Your task to perform on an android device: Open Google Chrome Image 0: 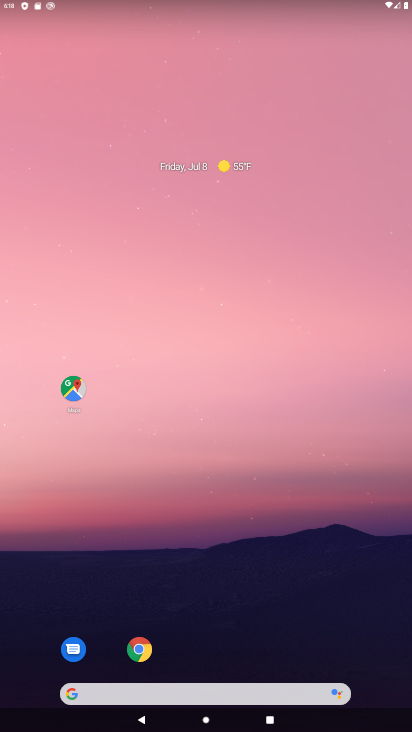
Step 0: drag from (278, 686) to (299, 61)
Your task to perform on an android device: Open Google Chrome Image 1: 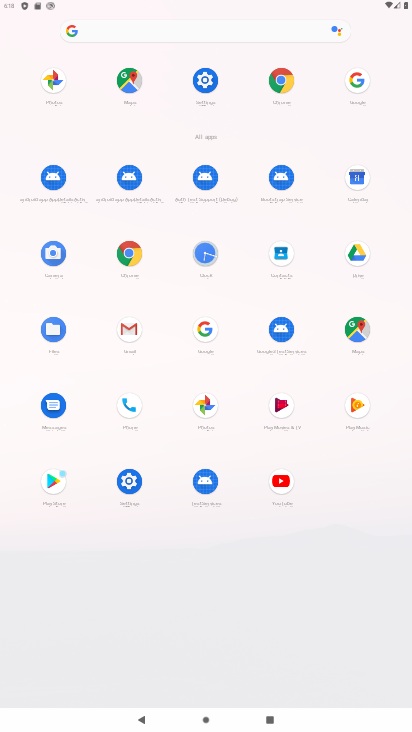
Step 1: click (124, 256)
Your task to perform on an android device: Open Google Chrome Image 2: 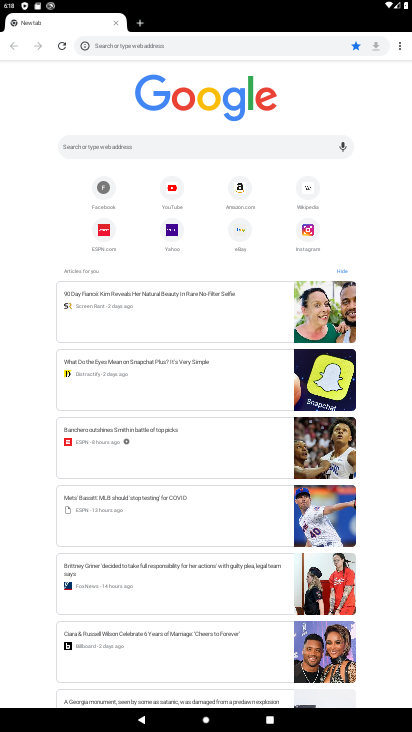
Step 2: task complete